Your task to perform on an android device: open wifi settings Image 0: 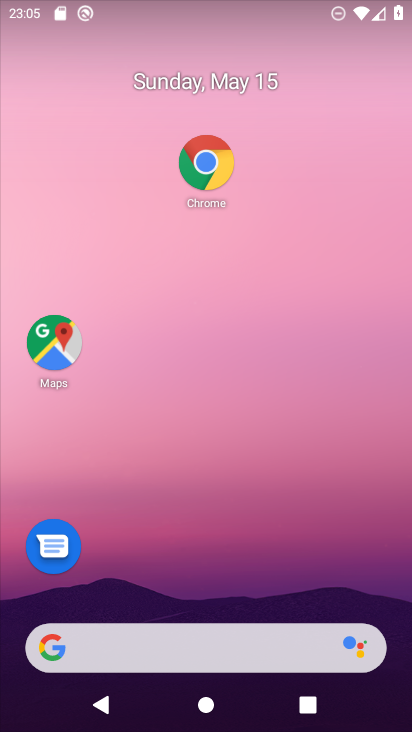
Step 0: drag from (238, 560) to (234, 201)
Your task to perform on an android device: open wifi settings Image 1: 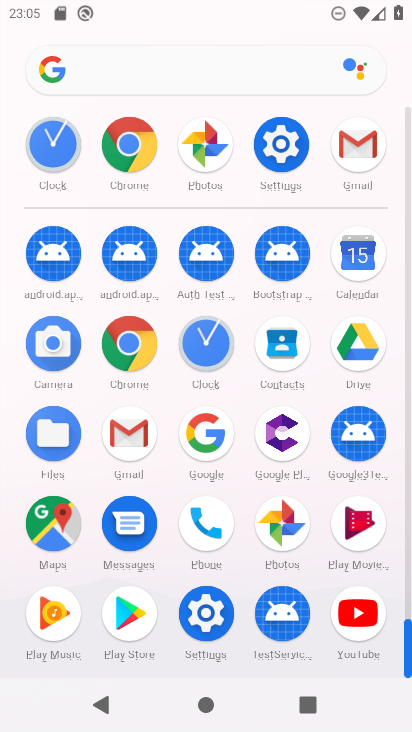
Step 1: click (272, 134)
Your task to perform on an android device: open wifi settings Image 2: 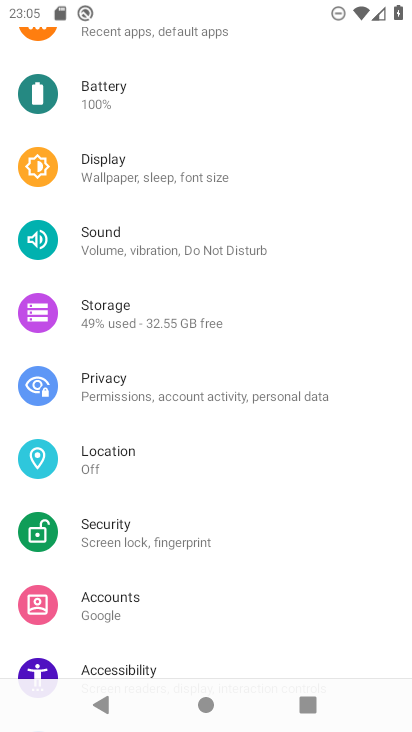
Step 2: drag from (184, 156) to (170, 593)
Your task to perform on an android device: open wifi settings Image 3: 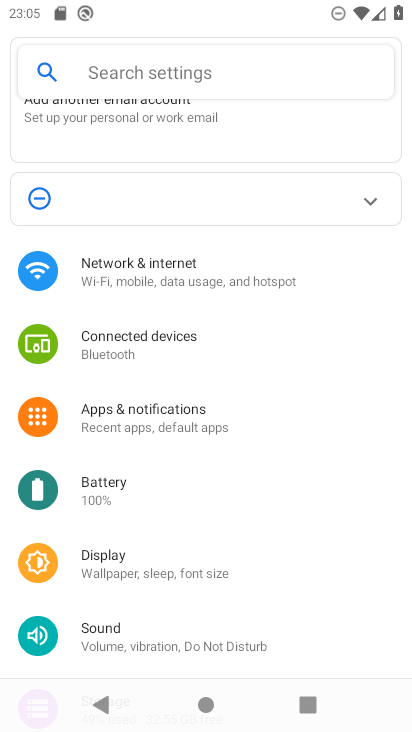
Step 3: click (190, 276)
Your task to perform on an android device: open wifi settings Image 4: 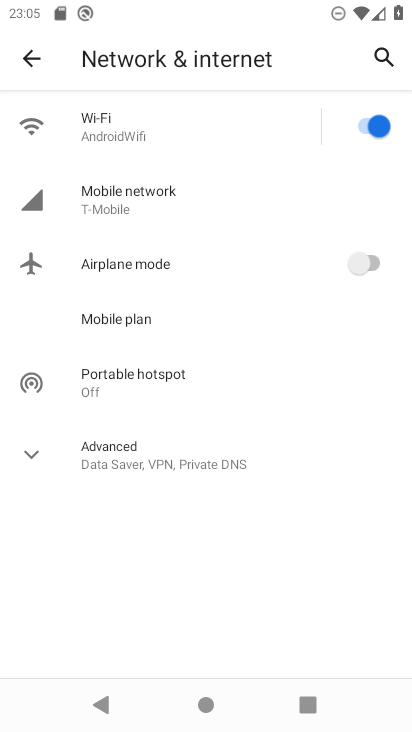
Step 4: click (130, 136)
Your task to perform on an android device: open wifi settings Image 5: 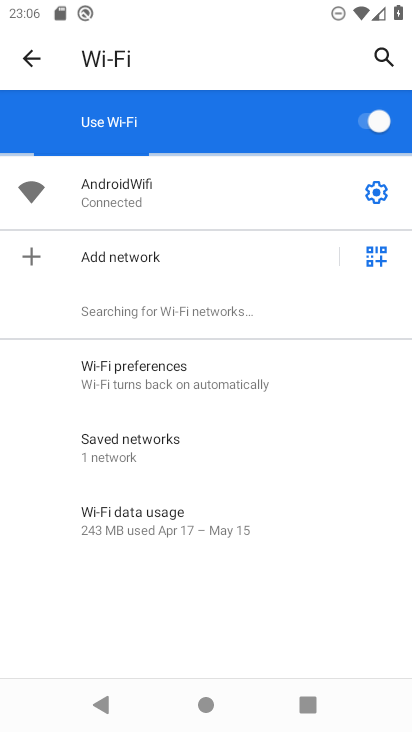
Step 5: task complete